Your task to perform on an android device: change the clock style Image 0: 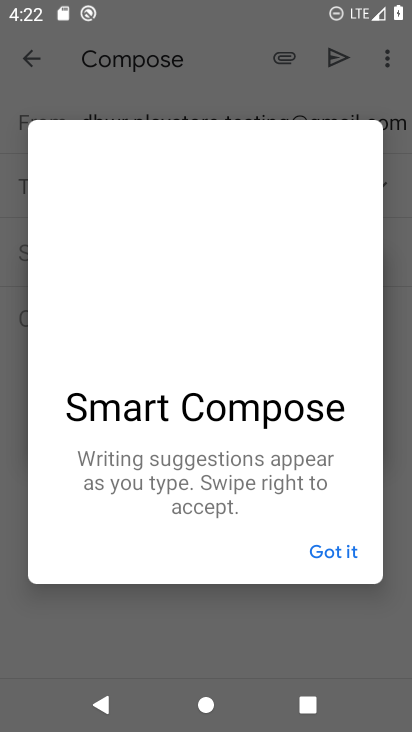
Step 0: press home button
Your task to perform on an android device: change the clock style Image 1: 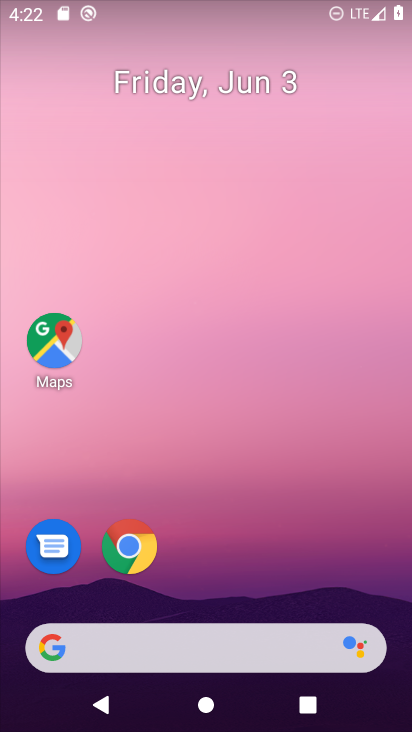
Step 1: drag from (247, 530) to (247, 16)
Your task to perform on an android device: change the clock style Image 2: 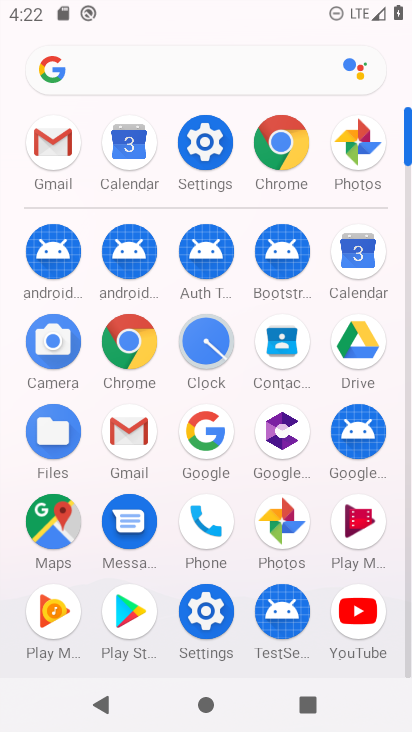
Step 2: click (207, 336)
Your task to perform on an android device: change the clock style Image 3: 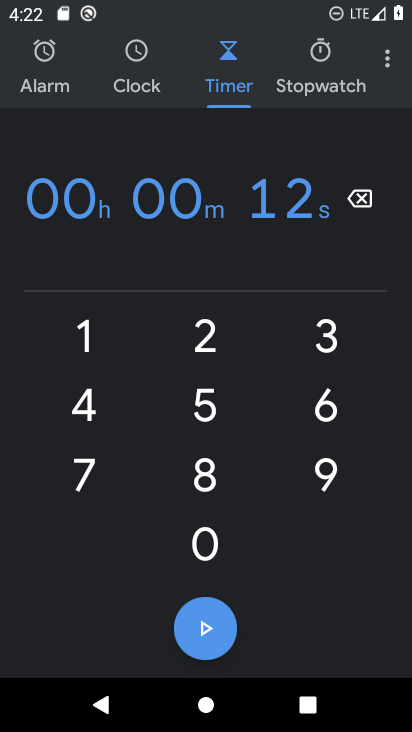
Step 3: click (130, 75)
Your task to perform on an android device: change the clock style Image 4: 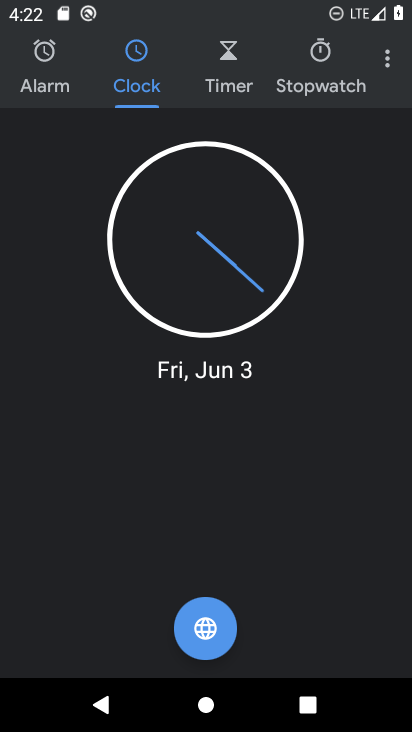
Step 4: click (385, 68)
Your task to perform on an android device: change the clock style Image 5: 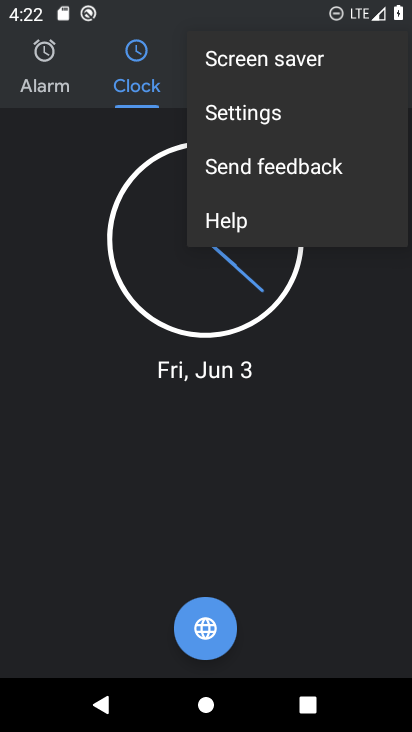
Step 5: click (333, 112)
Your task to perform on an android device: change the clock style Image 6: 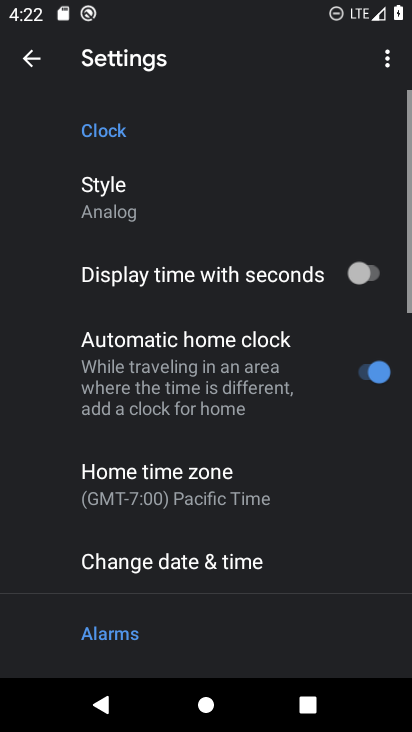
Step 6: click (137, 209)
Your task to perform on an android device: change the clock style Image 7: 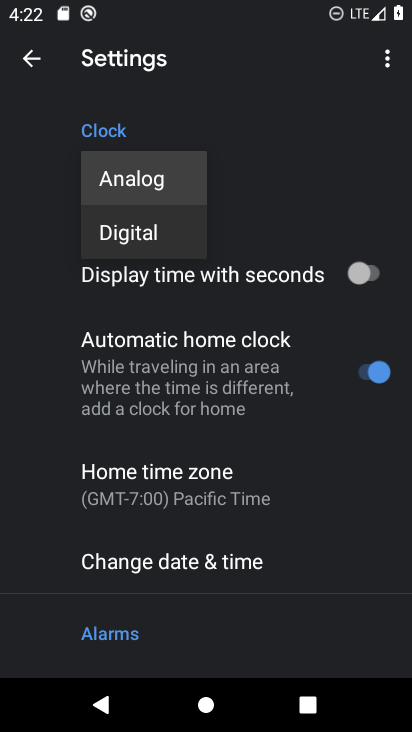
Step 7: click (139, 231)
Your task to perform on an android device: change the clock style Image 8: 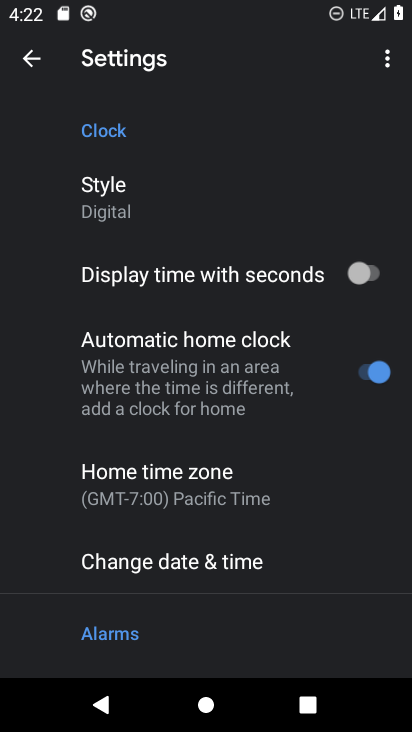
Step 8: click (24, 60)
Your task to perform on an android device: change the clock style Image 9: 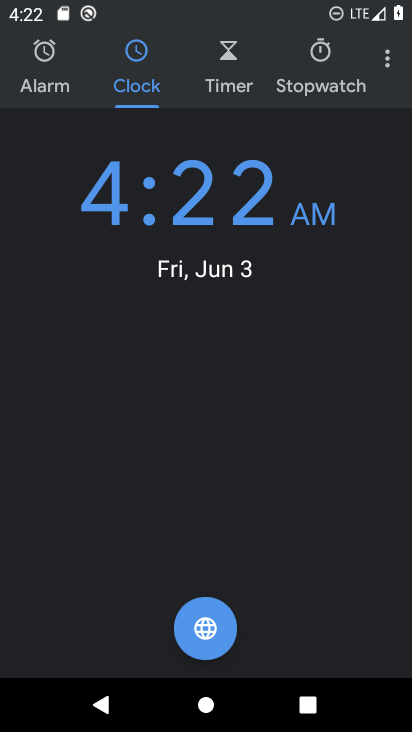
Step 9: task complete